Your task to perform on an android device: Open Youtube and go to the subscriptions tab Image 0: 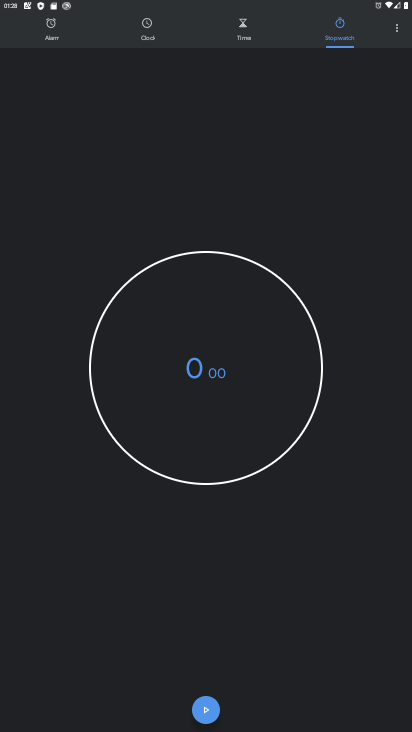
Step 0: press home button
Your task to perform on an android device: Open Youtube and go to the subscriptions tab Image 1: 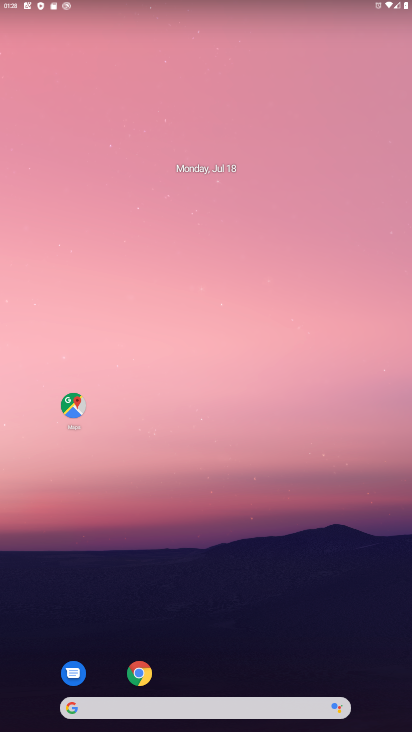
Step 1: drag from (281, 649) to (276, 21)
Your task to perform on an android device: Open Youtube and go to the subscriptions tab Image 2: 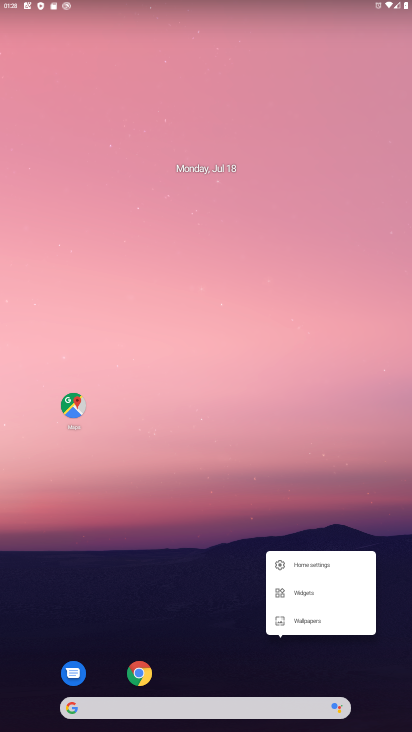
Step 2: click (182, 411)
Your task to perform on an android device: Open Youtube and go to the subscriptions tab Image 3: 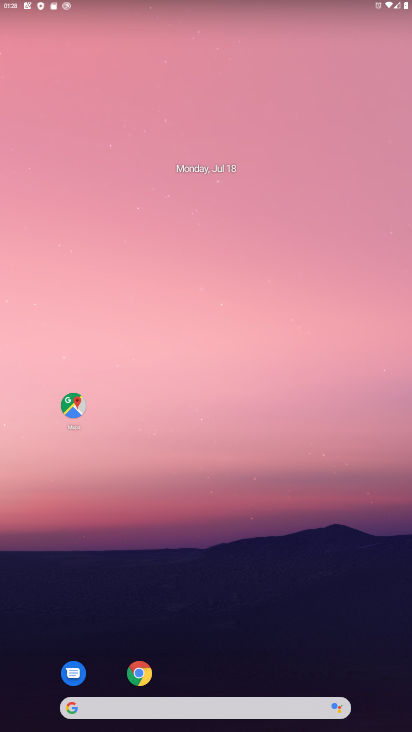
Step 3: drag from (227, 682) to (211, 194)
Your task to perform on an android device: Open Youtube and go to the subscriptions tab Image 4: 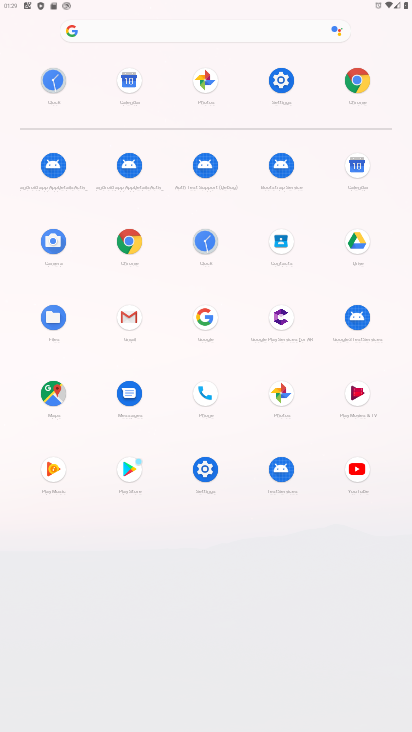
Step 4: click (365, 473)
Your task to perform on an android device: Open Youtube and go to the subscriptions tab Image 5: 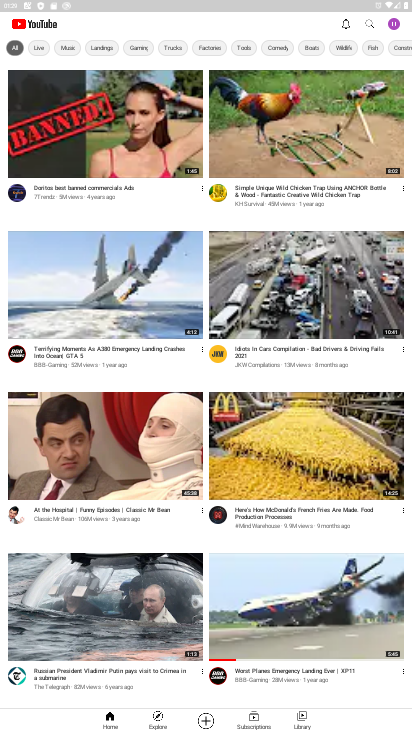
Step 5: click (248, 717)
Your task to perform on an android device: Open Youtube and go to the subscriptions tab Image 6: 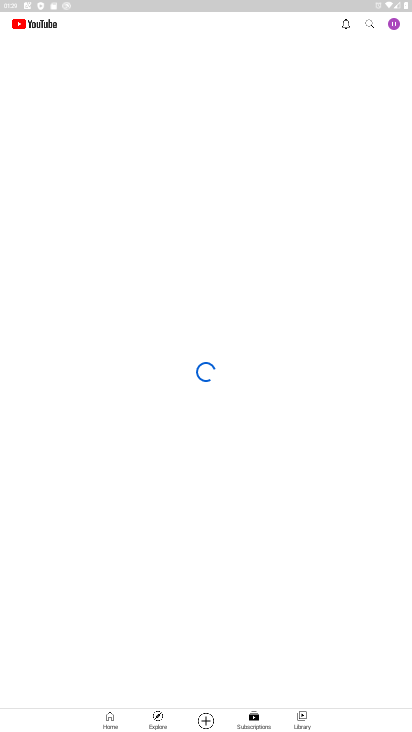
Step 6: task complete